Your task to perform on an android device: Do I have any events tomorrow? Image 0: 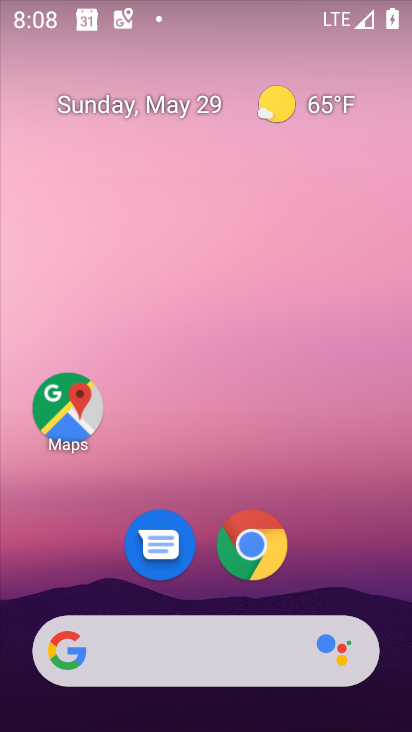
Step 0: drag from (185, 593) to (251, 177)
Your task to perform on an android device: Do I have any events tomorrow? Image 1: 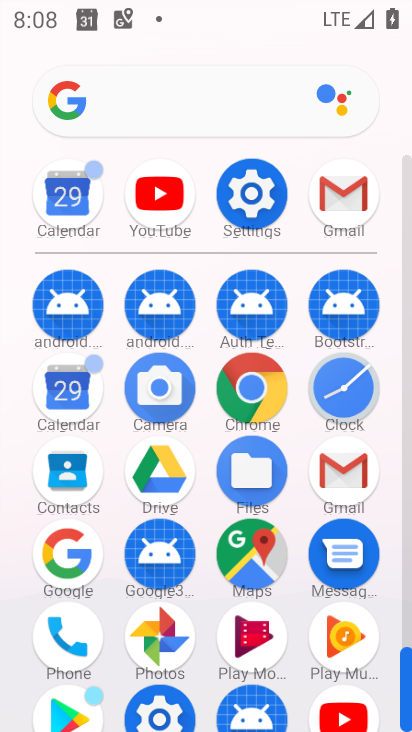
Step 1: click (79, 391)
Your task to perform on an android device: Do I have any events tomorrow? Image 2: 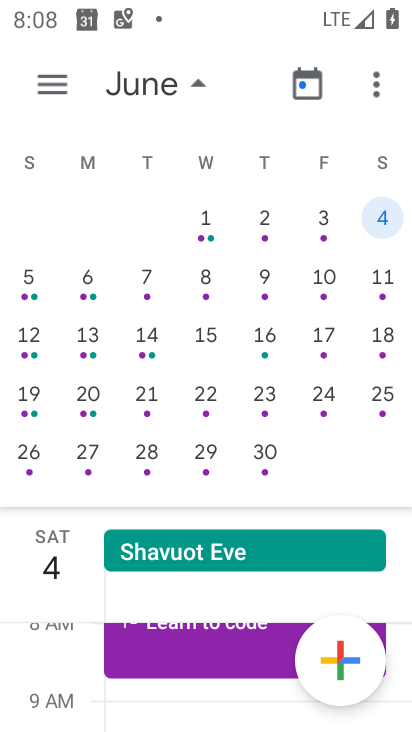
Step 2: drag from (83, 222) to (410, 608)
Your task to perform on an android device: Do I have any events tomorrow? Image 3: 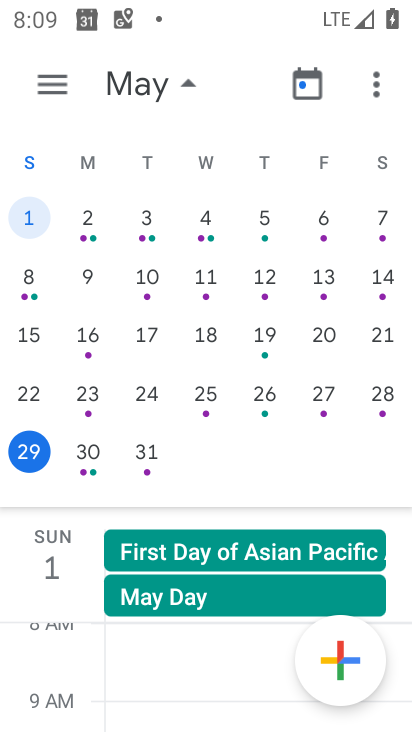
Step 3: click (90, 452)
Your task to perform on an android device: Do I have any events tomorrow? Image 4: 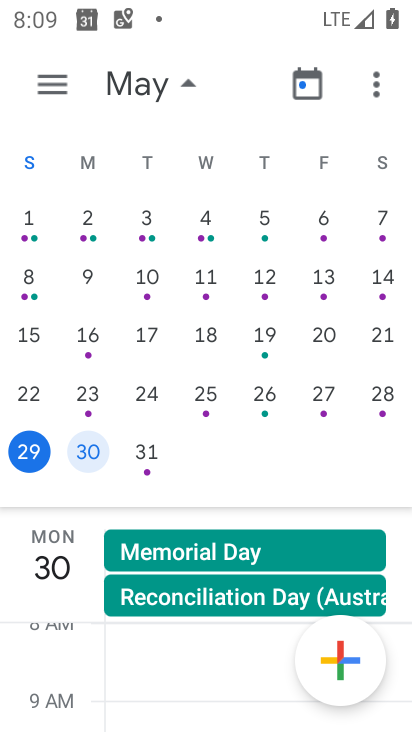
Step 4: click (162, 441)
Your task to perform on an android device: Do I have any events tomorrow? Image 5: 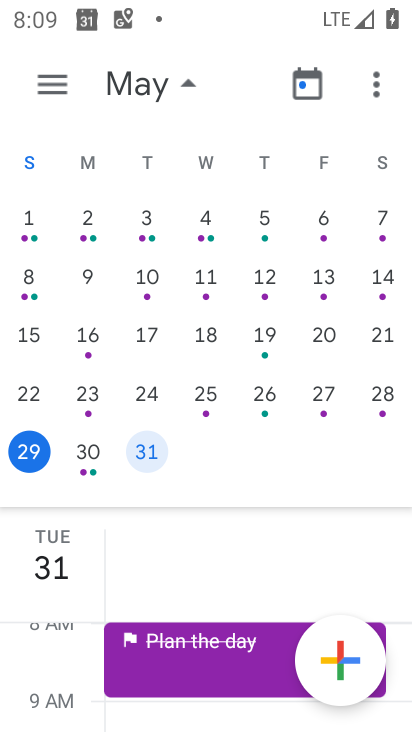
Step 5: task complete